Your task to perform on an android device: change alarm snooze length Image 0: 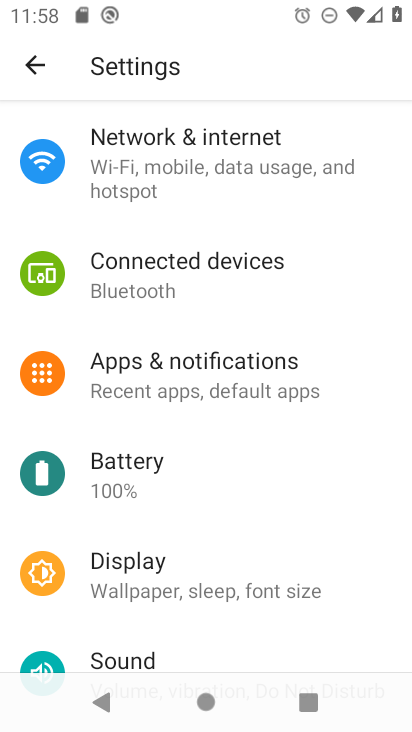
Step 0: drag from (281, 511) to (301, 305)
Your task to perform on an android device: change alarm snooze length Image 1: 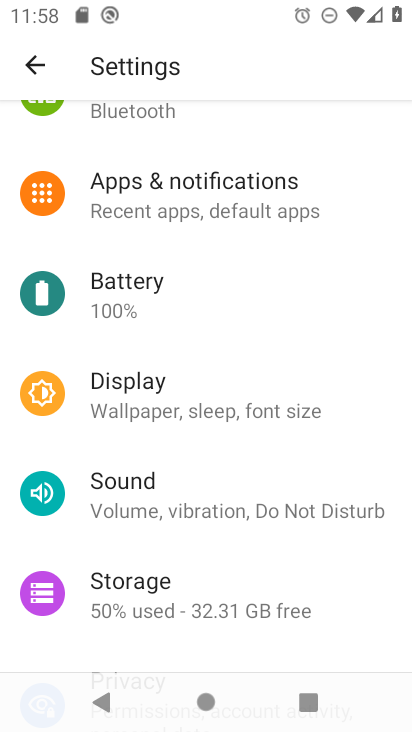
Step 1: press home button
Your task to perform on an android device: change alarm snooze length Image 2: 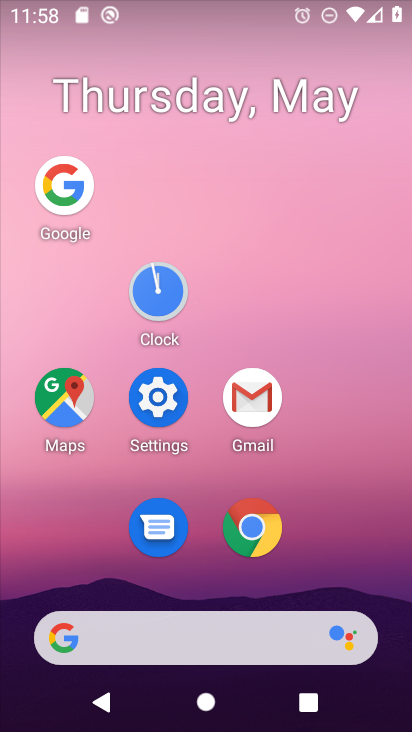
Step 2: click (165, 288)
Your task to perform on an android device: change alarm snooze length Image 3: 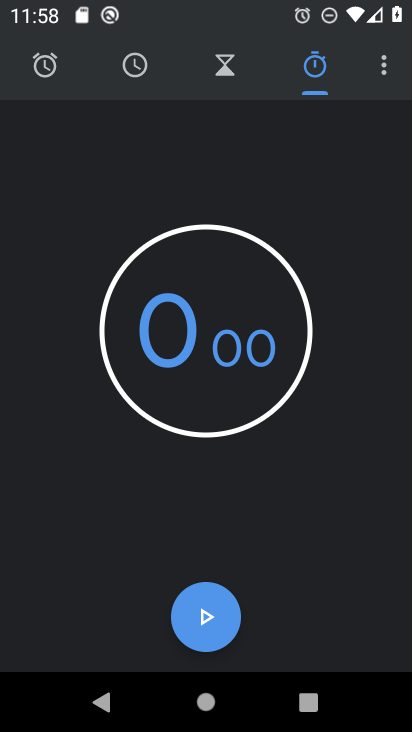
Step 3: click (381, 75)
Your task to perform on an android device: change alarm snooze length Image 4: 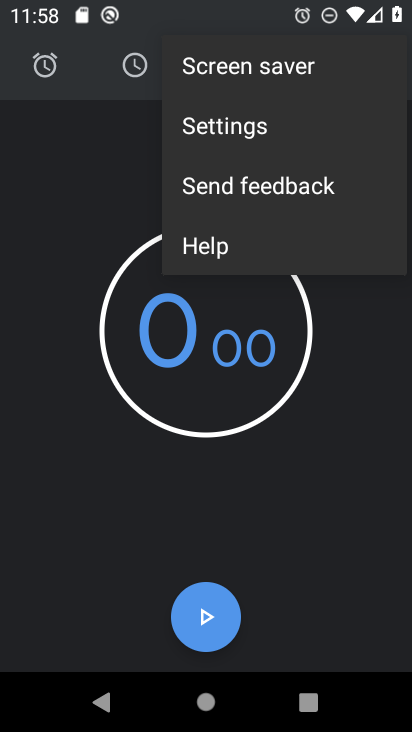
Step 4: click (282, 117)
Your task to perform on an android device: change alarm snooze length Image 5: 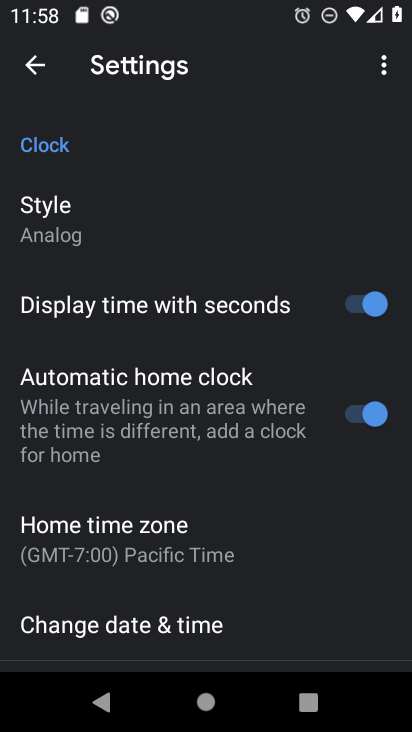
Step 5: drag from (127, 497) to (265, 125)
Your task to perform on an android device: change alarm snooze length Image 6: 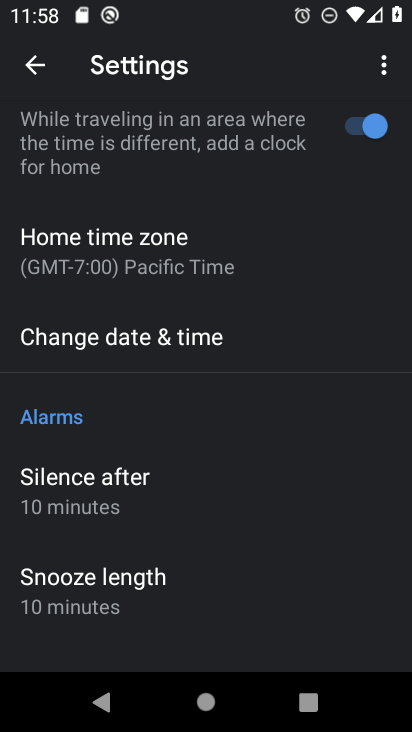
Step 6: drag from (254, 527) to (288, 381)
Your task to perform on an android device: change alarm snooze length Image 7: 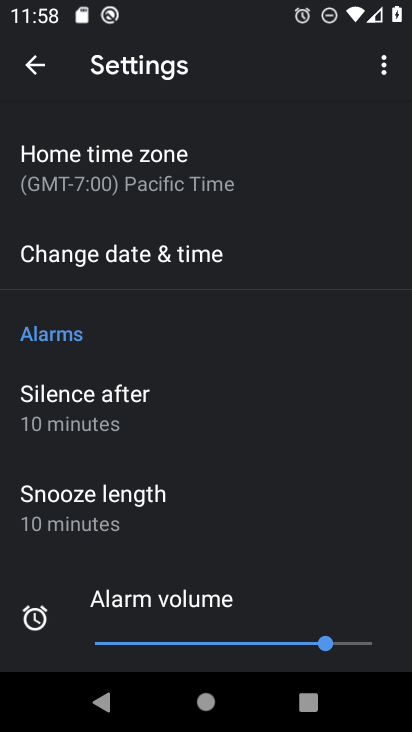
Step 7: click (281, 493)
Your task to perform on an android device: change alarm snooze length Image 8: 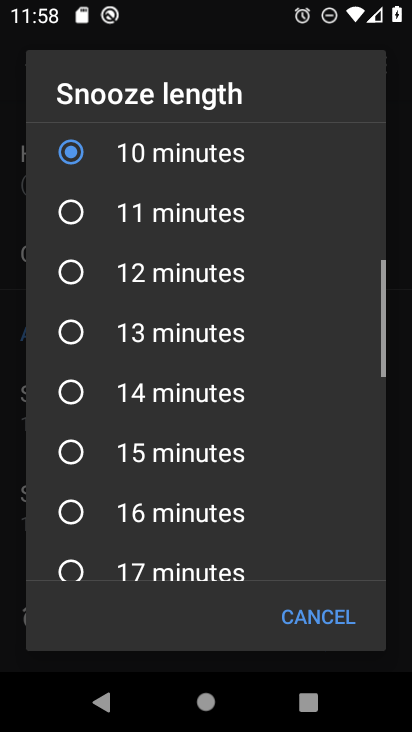
Step 8: click (230, 217)
Your task to perform on an android device: change alarm snooze length Image 9: 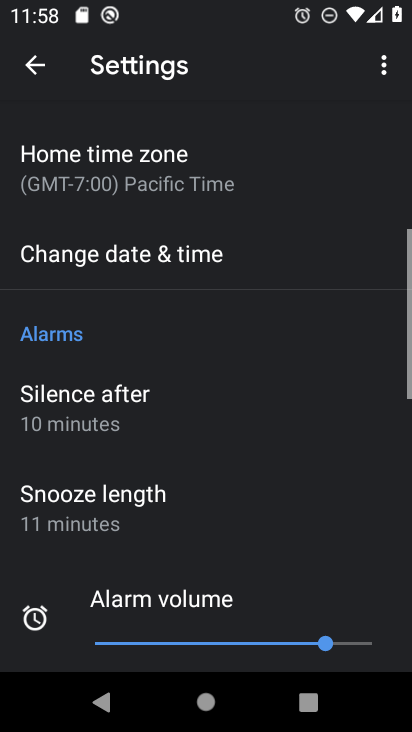
Step 9: task complete